Your task to perform on an android device: Go to calendar. Show me events next week Image 0: 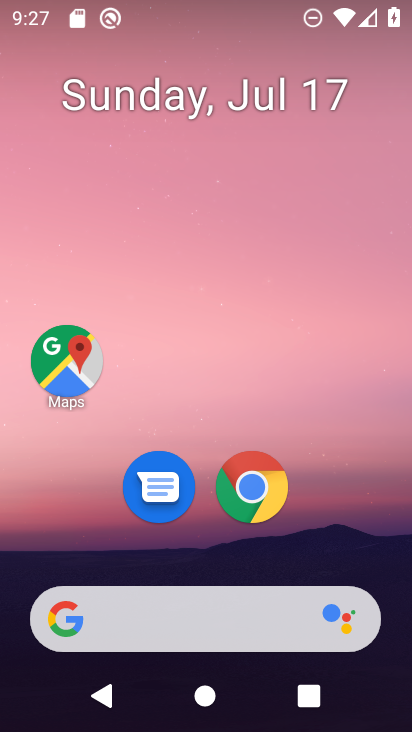
Step 0: press home button
Your task to perform on an android device: Go to calendar. Show me events next week Image 1: 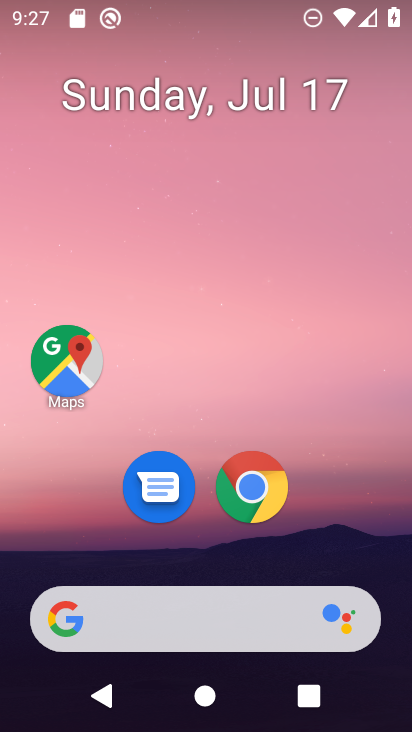
Step 1: drag from (338, 542) to (88, 722)
Your task to perform on an android device: Go to calendar. Show me events next week Image 2: 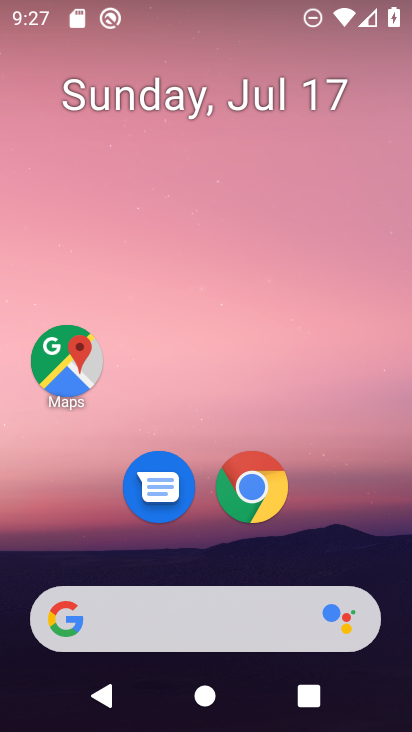
Step 2: drag from (359, 568) to (366, 18)
Your task to perform on an android device: Go to calendar. Show me events next week Image 3: 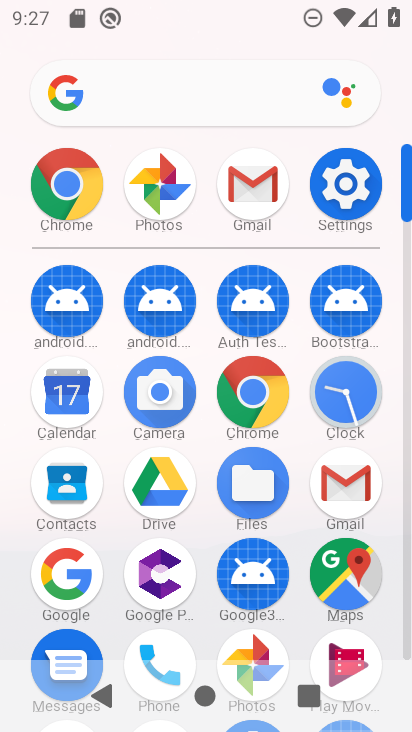
Step 3: click (49, 390)
Your task to perform on an android device: Go to calendar. Show me events next week Image 4: 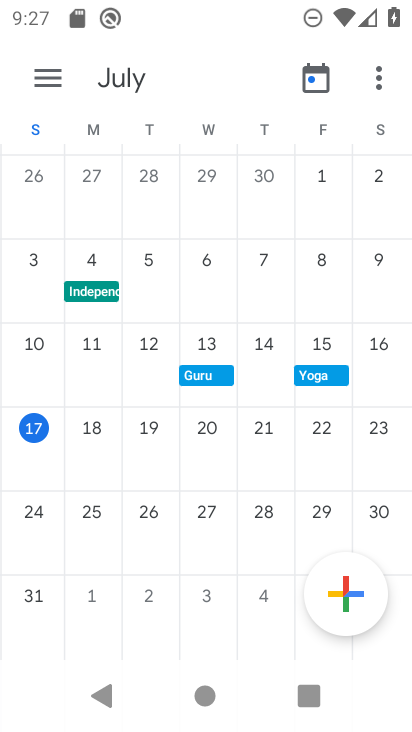
Step 4: click (56, 84)
Your task to perform on an android device: Go to calendar. Show me events next week Image 5: 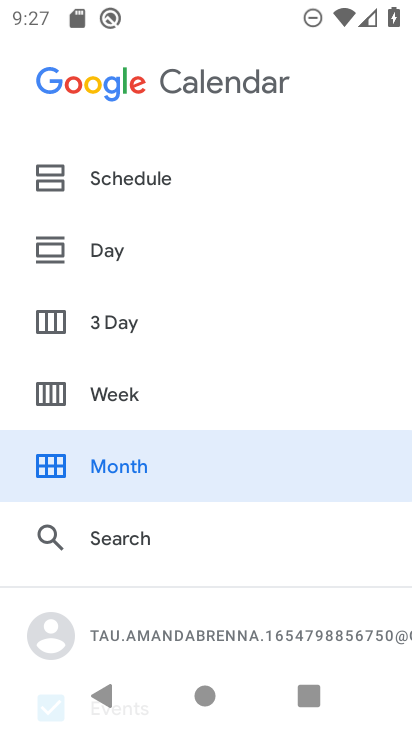
Step 5: click (101, 403)
Your task to perform on an android device: Go to calendar. Show me events next week Image 6: 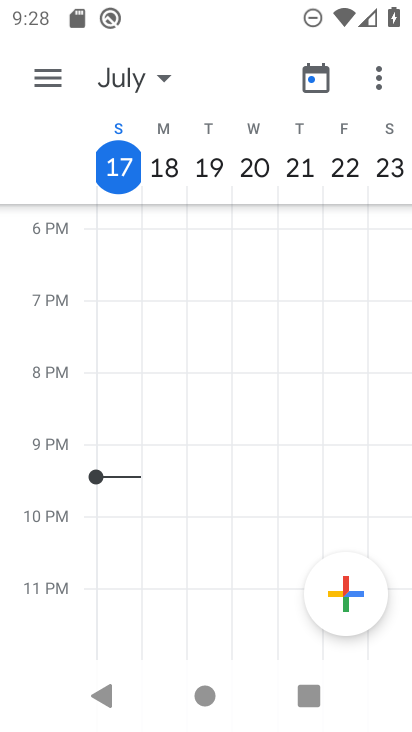
Step 6: task complete